Your task to perform on an android device: Go to privacy settings Image 0: 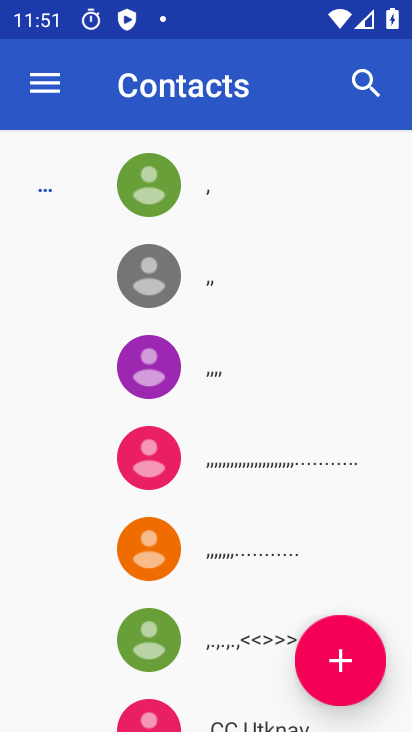
Step 0: press home button
Your task to perform on an android device: Go to privacy settings Image 1: 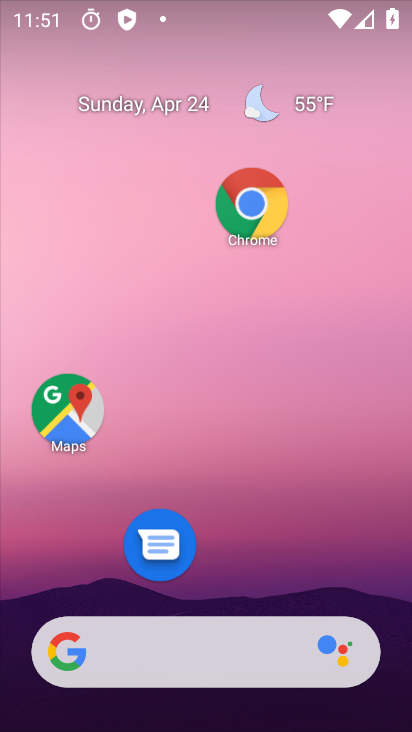
Step 1: drag from (275, 638) to (221, 272)
Your task to perform on an android device: Go to privacy settings Image 2: 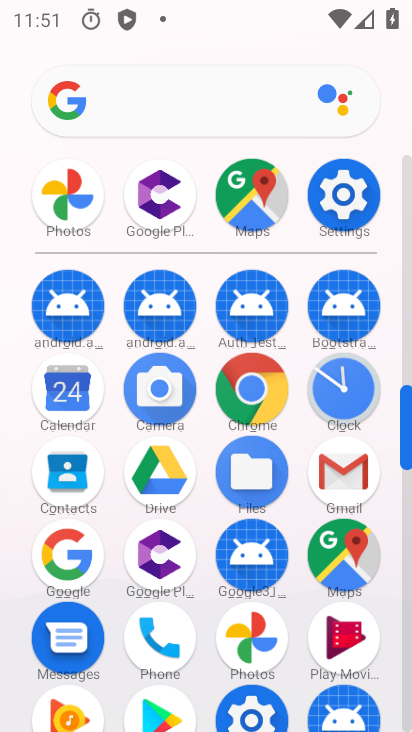
Step 2: click (339, 212)
Your task to perform on an android device: Go to privacy settings Image 3: 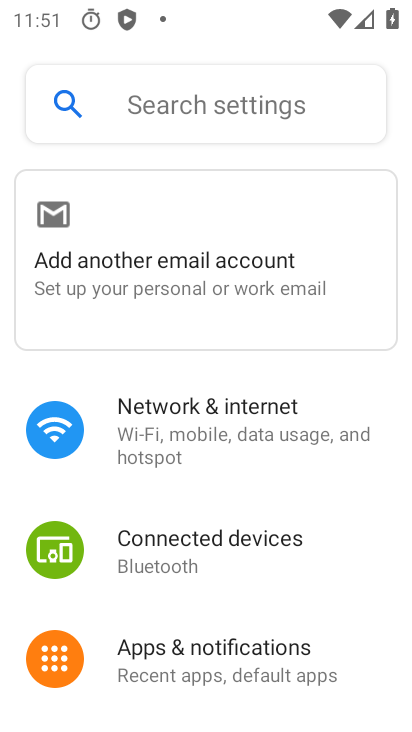
Step 3: click (224, 108)
Your task to perform on an android device: Go to privacy settings Image 4: 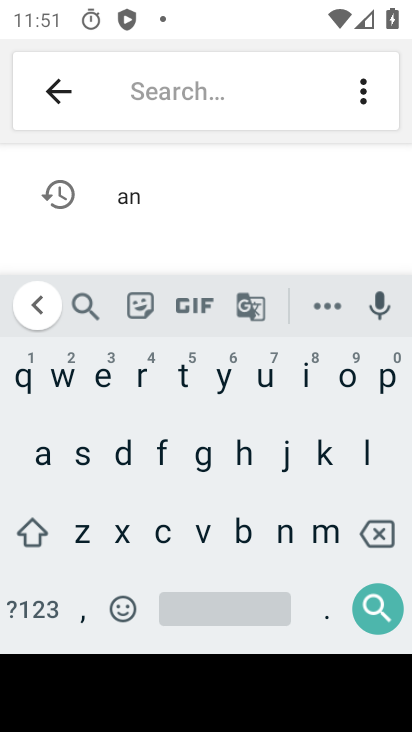
Step 4: click (386, 382)
Your task to perform on an android device: Go to privacy settings Image 5: 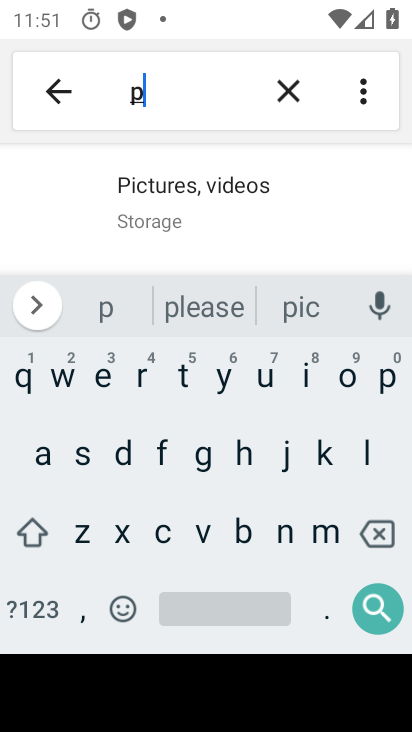
Step 5: click (143, 383)
Your task to perform on an android device: Go to privacy settings Image 6: 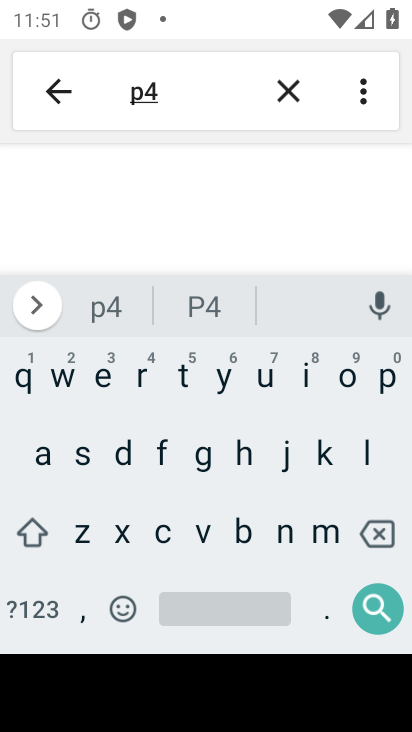
Step 6: click (382, 528)
Your task to perform on an android device: Go to privacy settings Image 7: 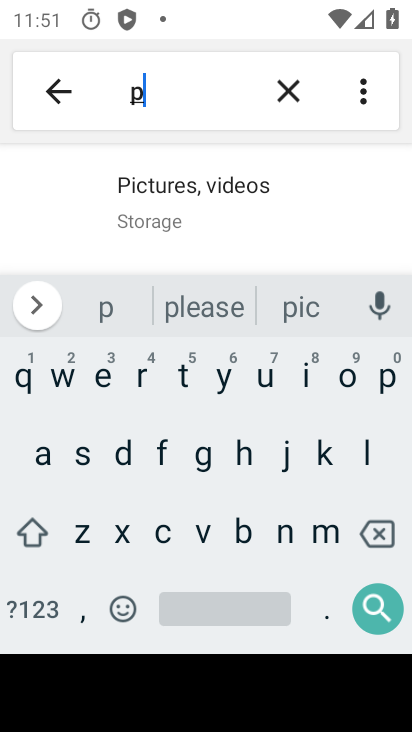
Step 7: click (142, 380)
Your task to perform on an android device: Go to privacy settings Image 8: 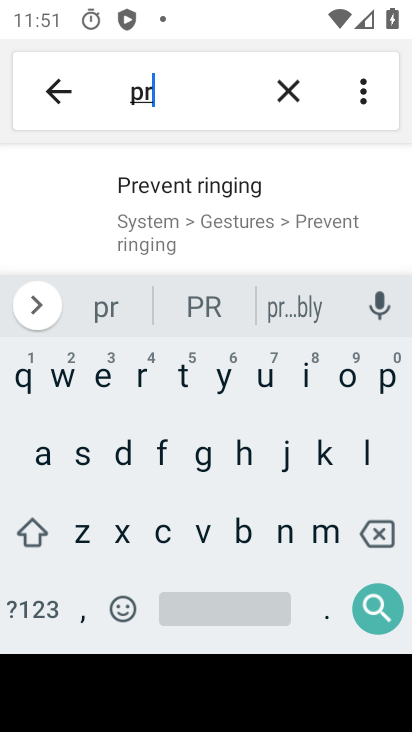
Step 8: click (307, 388)
Your task to perform on an android device: Go to privacy settings Image 9: 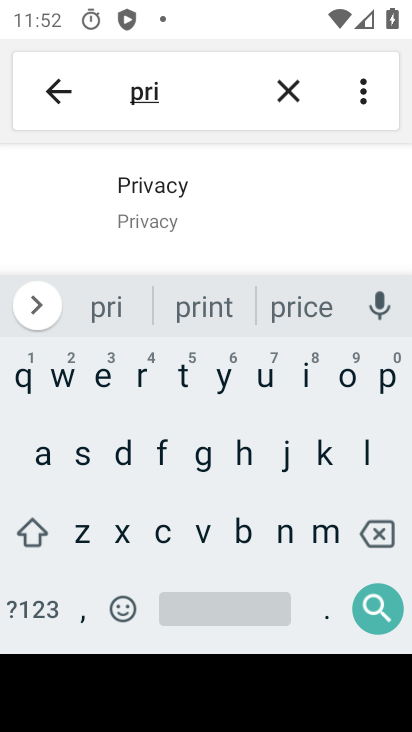
Step 9: click (159, 200)
Your task to perform on an android device: Go to privacy settings Image 10: 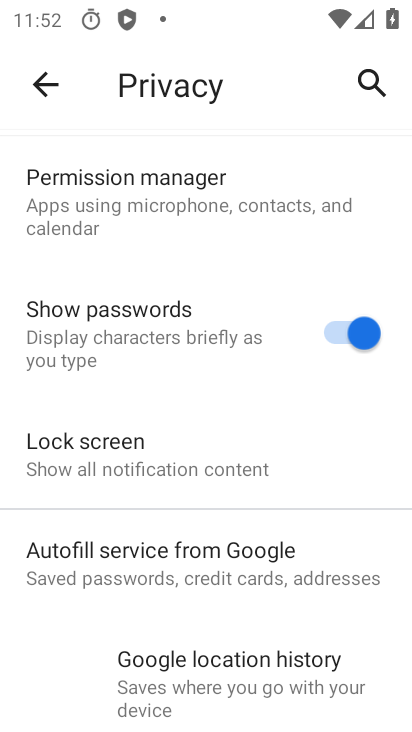
Step 10: task complete